Your task to perform on an android device: Open Chrome and go to settings Image 0: 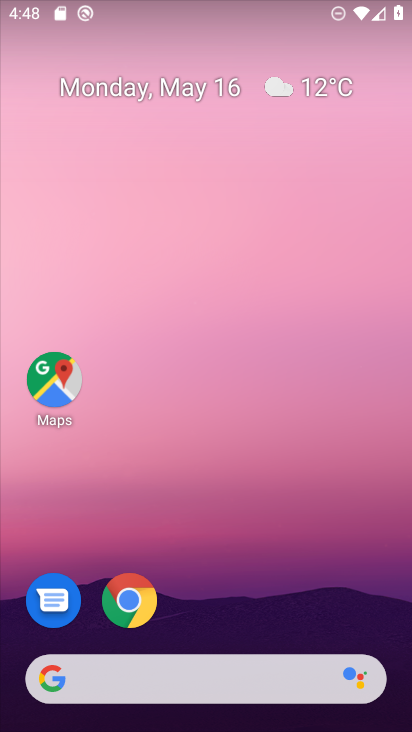
Step 0: click (135, 594)
Your task to perform on an android device: Open Chrome and go to settings Image 1: 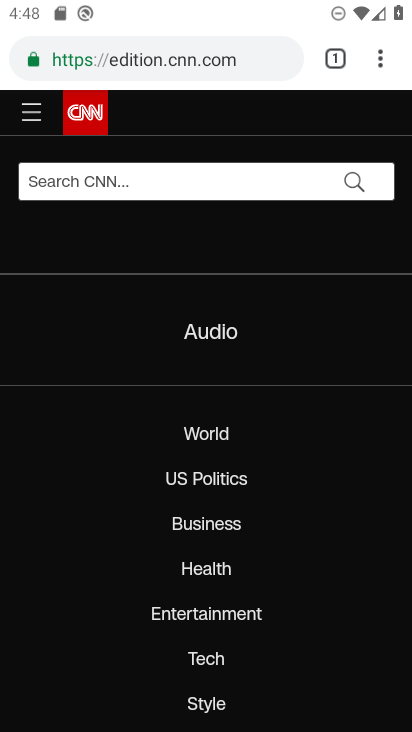
Step 1: task complete